Your task to perform on an android device: open a bookmark in the chrome app Image 0: 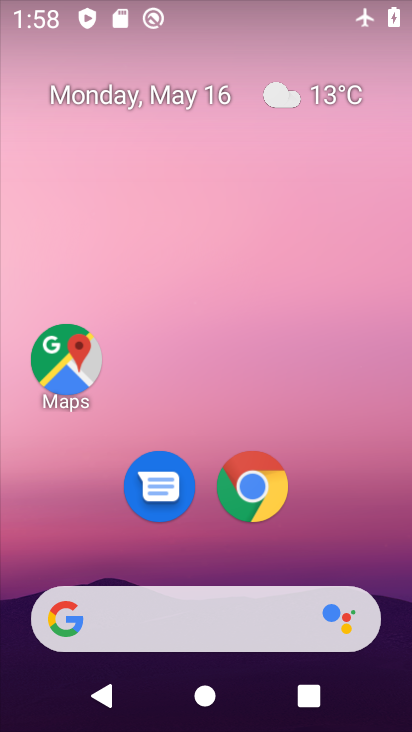
Step 0: drag from (349, 506) to (308, 1)
Your task to perform on an android device: open a bookmark in the chrome app Image 1: 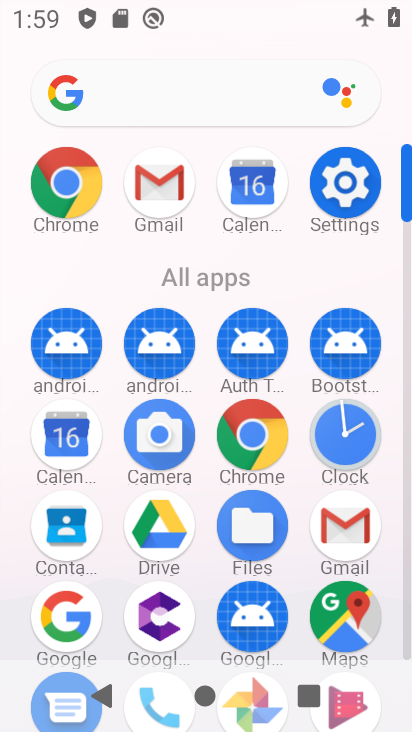
Step 1: click (64, 218)
Your task to perform on an android device: open a bookmark in the chrome app Image 2: 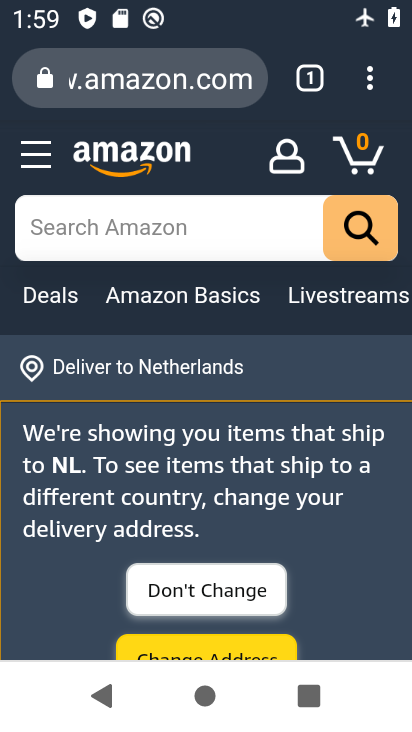
Step 2: click (369, 85)
Your task to perform on an android device: open a bookmark in the chrome app Image 3: 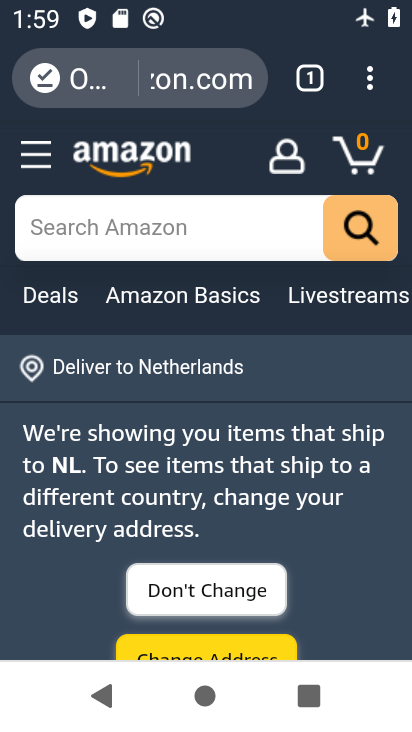
Step 3: drag from (372, 87) to (113, 563)
Your task to perform on an android device: open a bookmark in the chrome app Image 4: 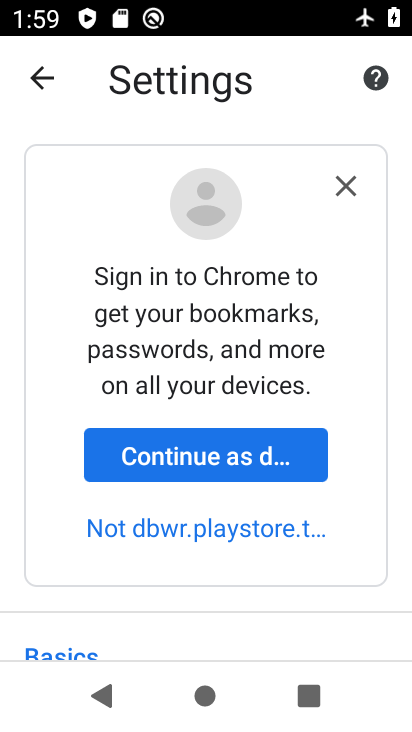
Step 4: drag from (294, 584) to (256, 216)
Your task to perform on an android device: open a bookmark in the chrome app Image 5: 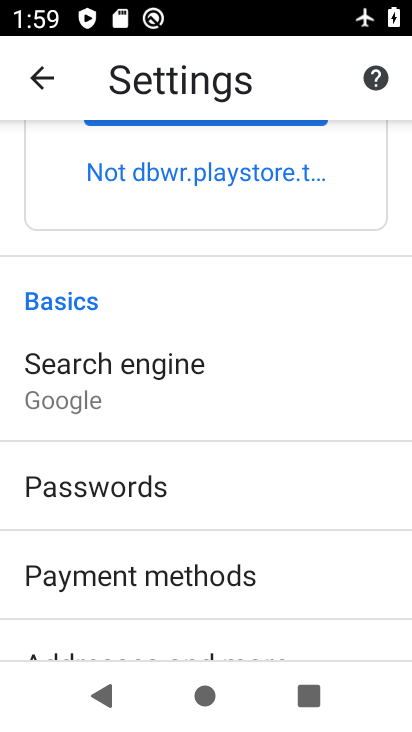
Step 5: click (35, 85)
Your task to perform on an android device: open a bookmark in the chrome app Image 6: 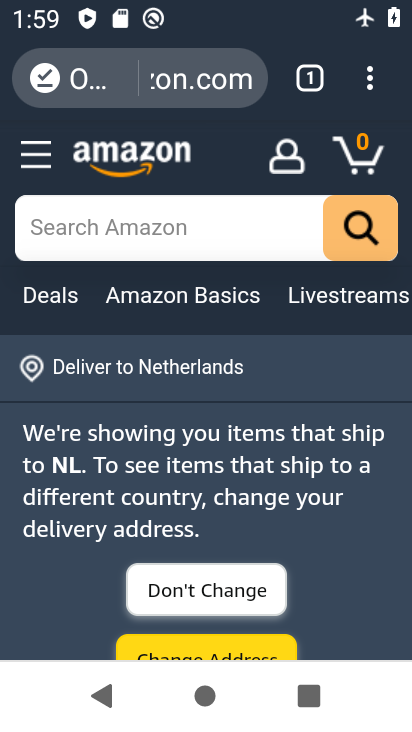
Step 6: task complete